Your task to perform on an android device: Search for sushi restaurants on Maps Image 0: 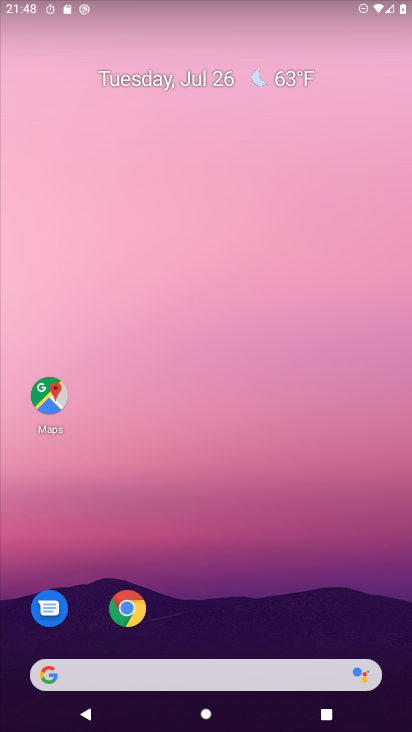
Step 0: click (49, 397)
Your task to perform on an android device: Search for sushi restaurants on Maps Image 1: 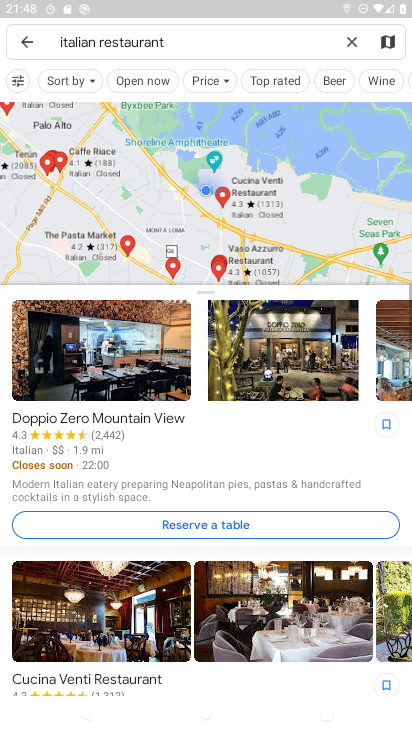
Step 1: click (348, 39)
Your task to perform on an android device: Search for sushi restaurants on Maps Image 2: 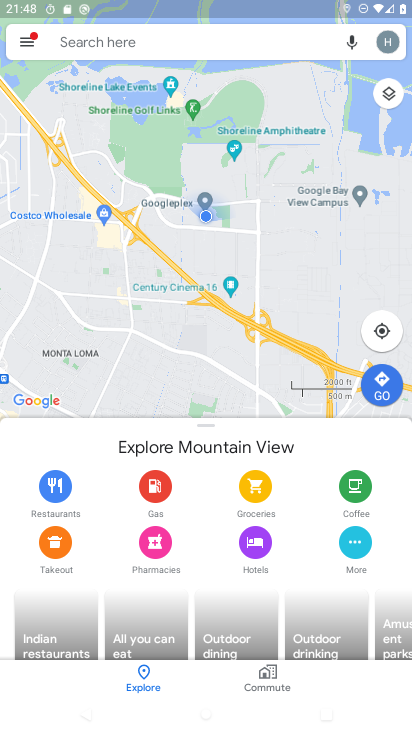
Step 2: click (78, 41)
Your task to perform on an android device: Search for sushi restaurants on Maps Image 3: 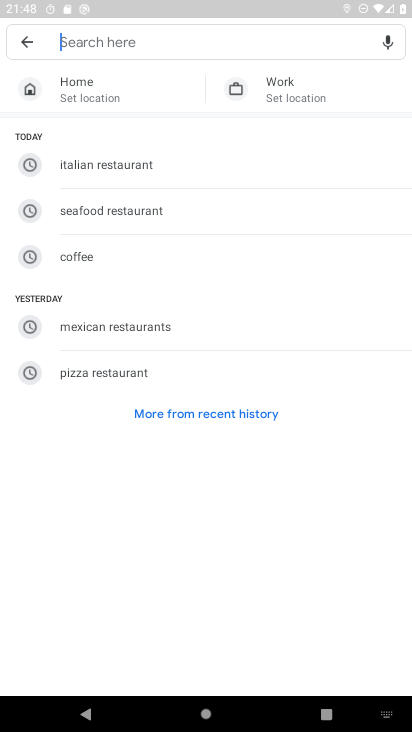
Step 3: type "sushi restaurants"
Your task to perform on an android device: Search for sushi restaurants on Maps Image 4: 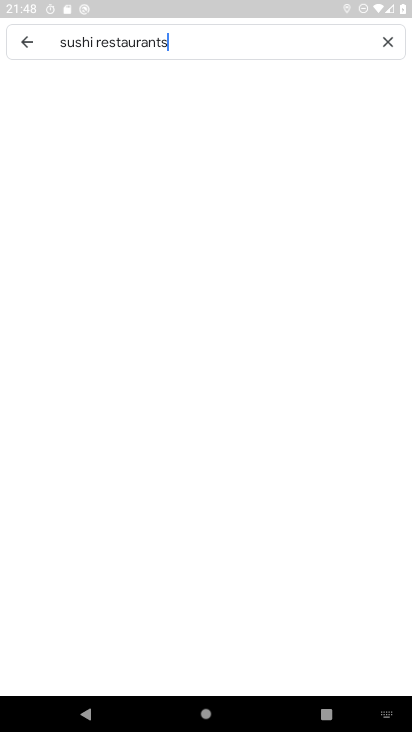
Step 4: type ""
Your task to perform on an android device: Search for sushi restaurants on Maps Image 5: 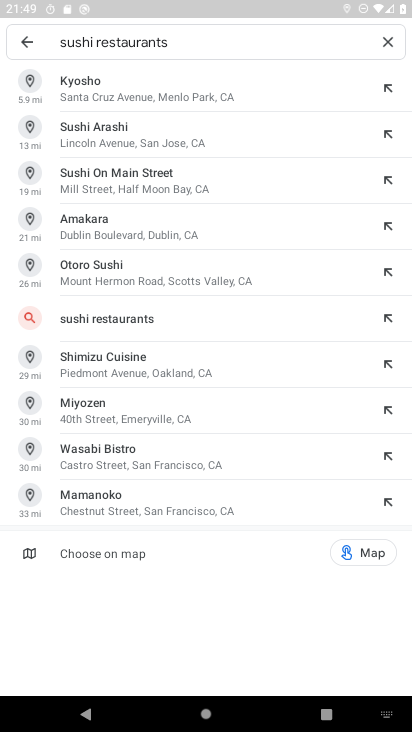
Step 5: type ""
Your task to perform on an android device: Search for sushi restaurants on Maps Image 6: 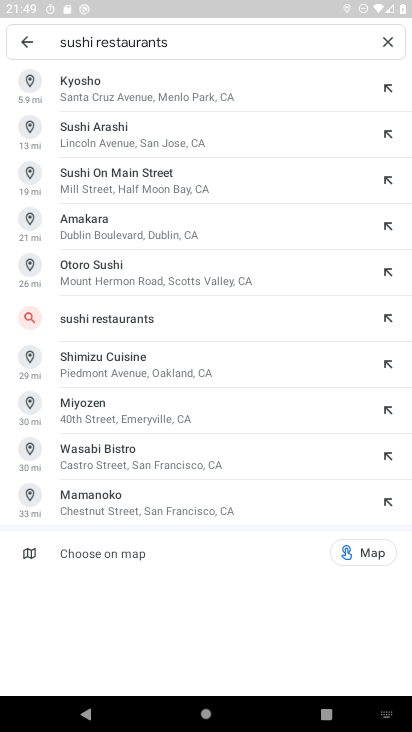
Step 6: type ""
Your task to perform on an android device: Search for sushi restaurants on Maps Image 7: 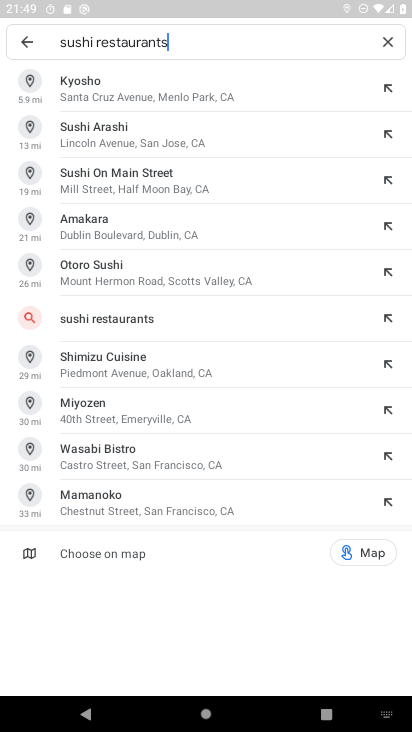
Step 7: task complete